Your task to perform on an android device: Open CNN.com Image 0: 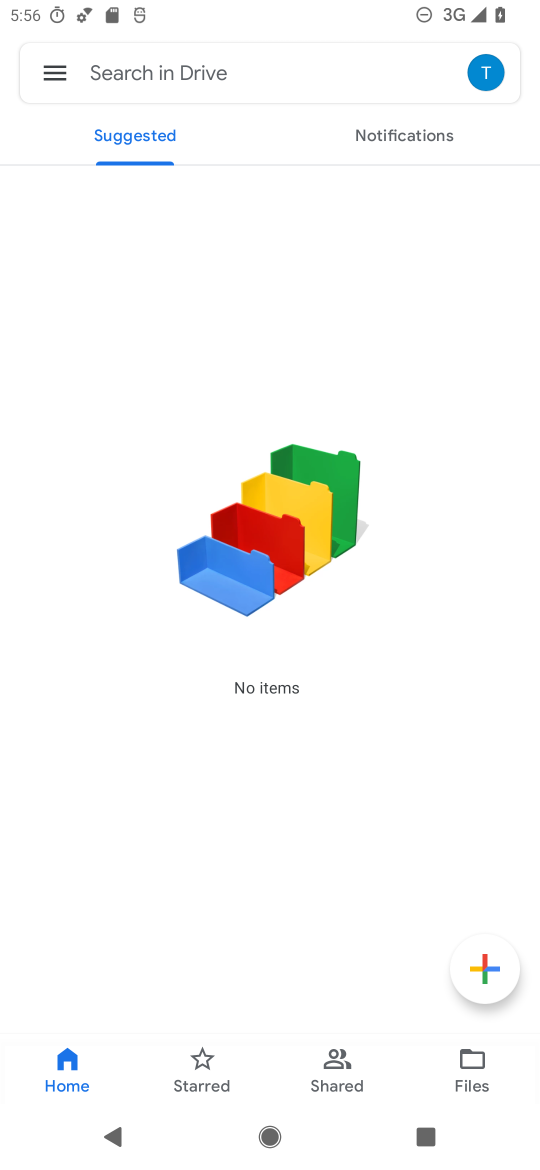
Step 0: press home button
Your task to perform on an android device: Open CNN.com Image 1: 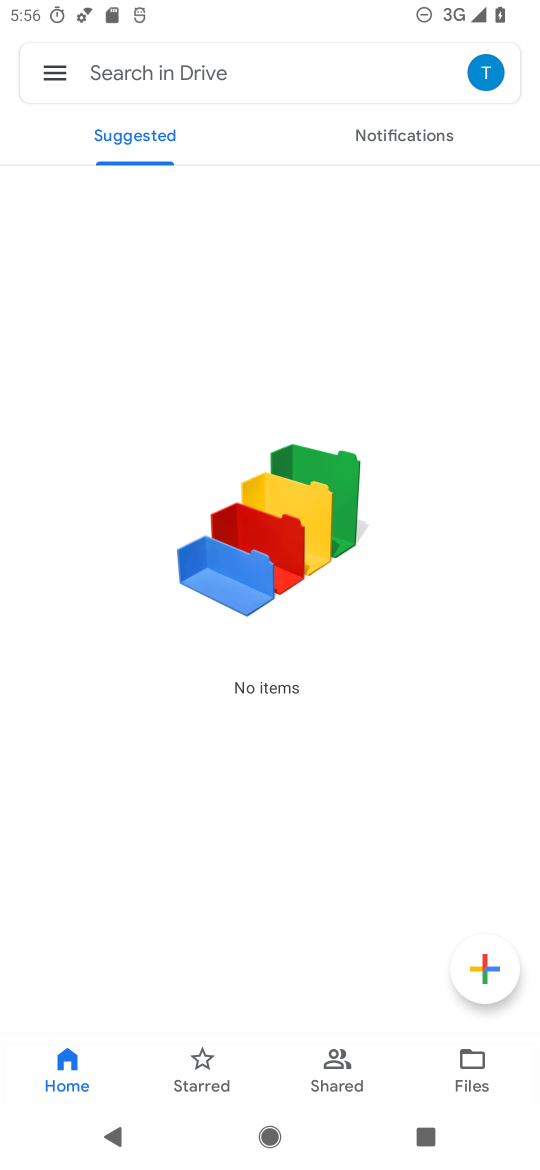
Step 1: press home button
Your task to perform on an android device: Open CNN.com Image 2: 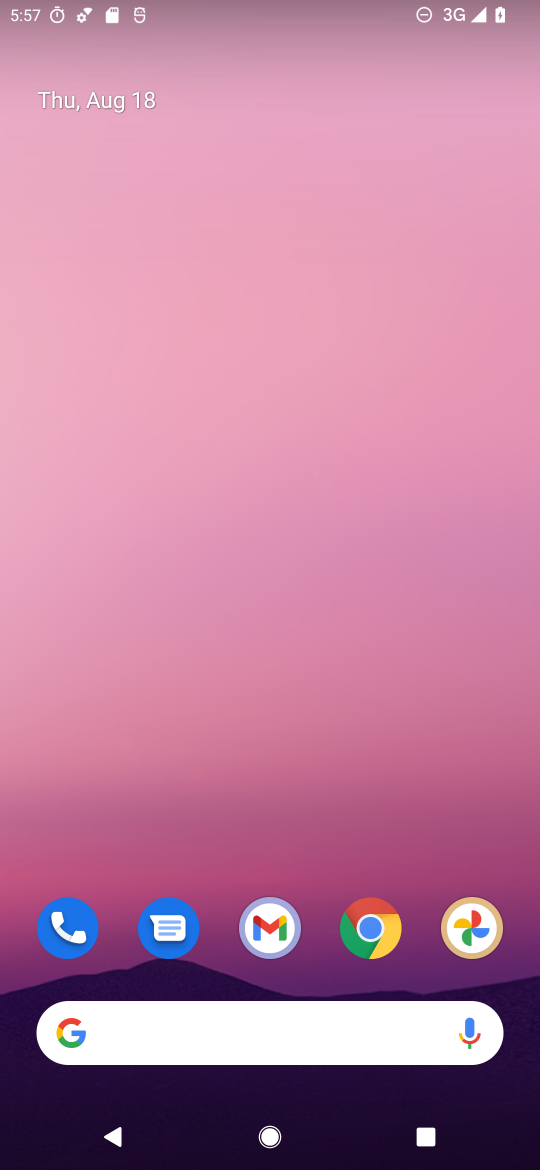
Step 2: drag from (386, 845) to (380, 1)
Your task to perform on an android device: Open CNN.com Image 3: 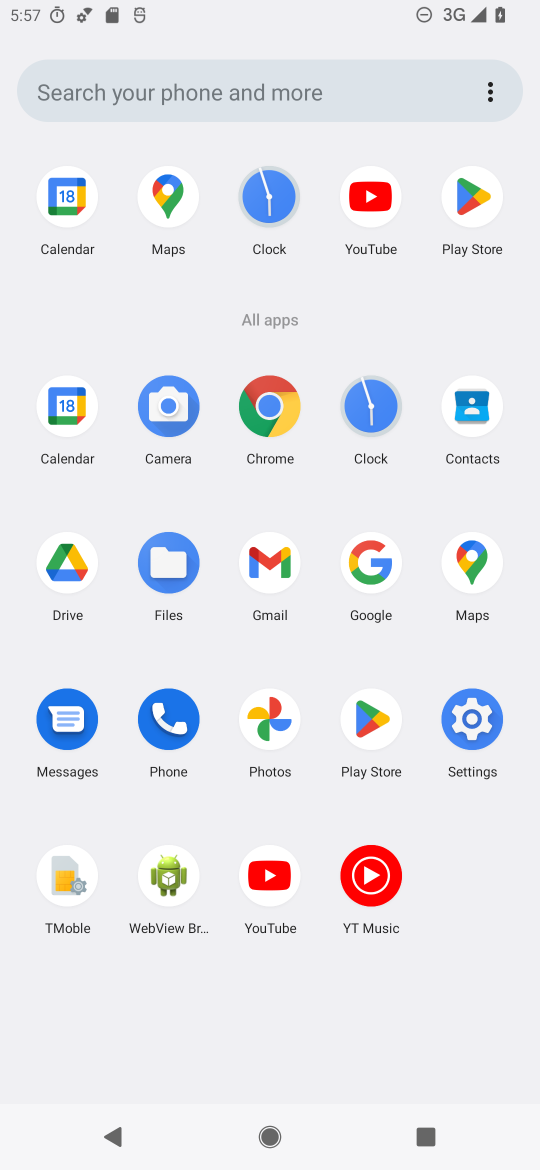
Step 3: click (256, 410)
Your task to perform on an android device: Open CNN.com Image 4: 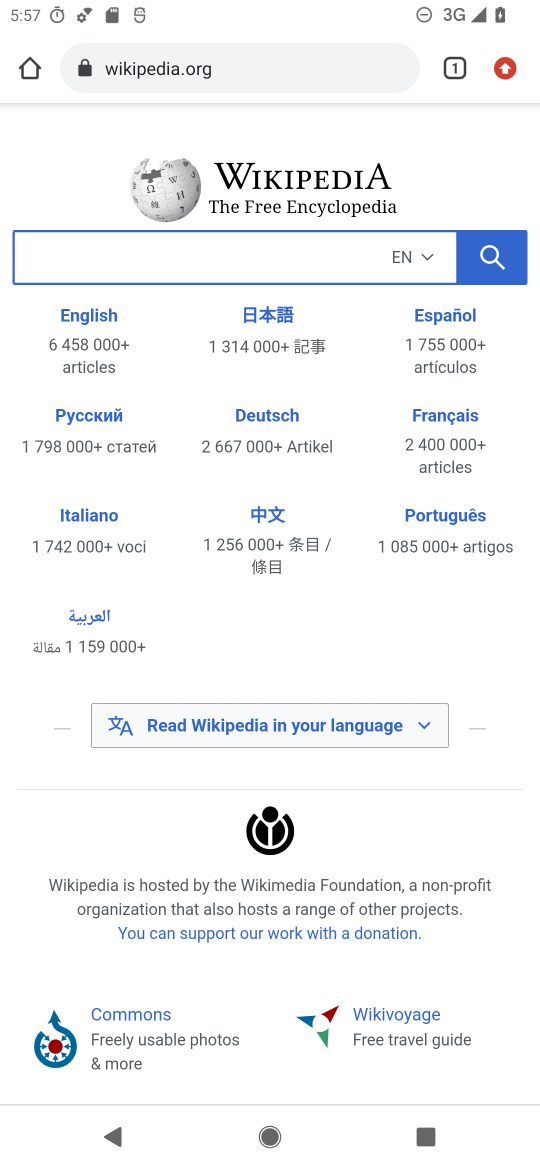
Step 4: click (263, 68)
Your task to perform on an android device: Open CNN.com Image 5: 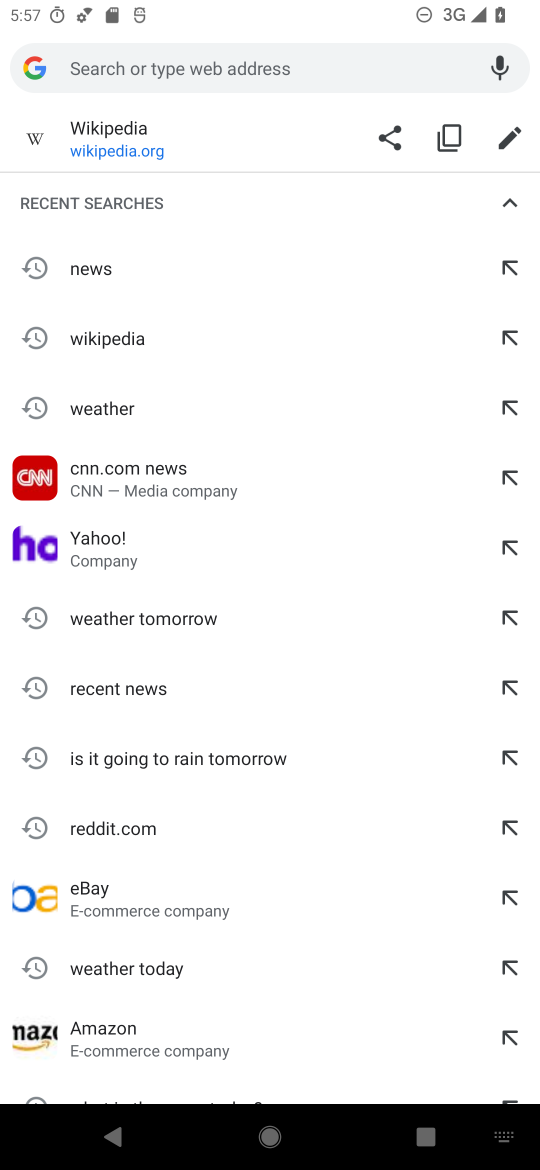
Step 5: type "cnn.com"
Your task to perform on an android device: Open CNN.com Image 6: 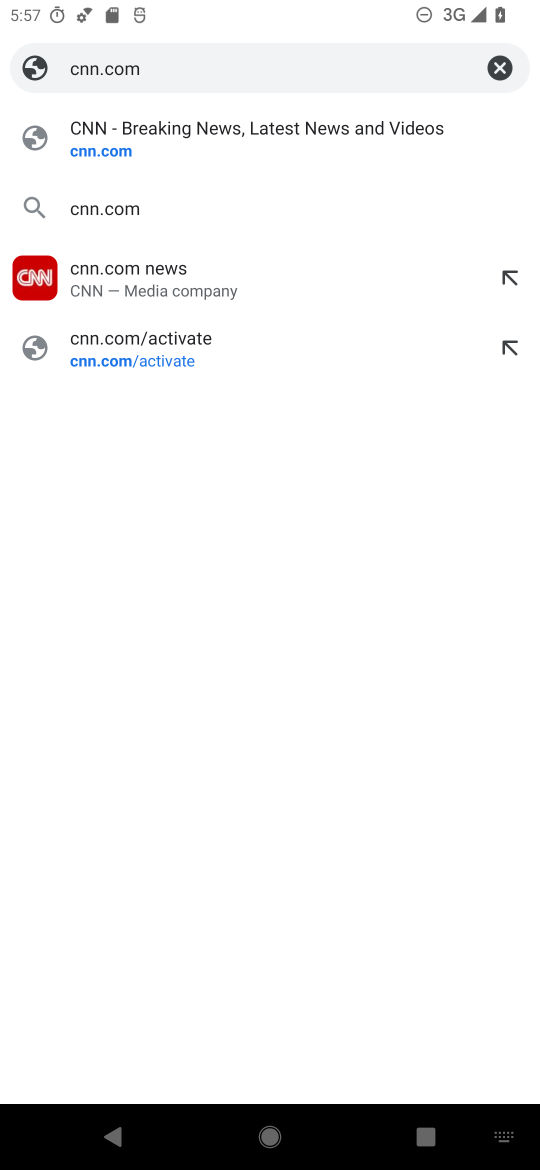
Step 6: click (105, 168)
Your task to perform on an android device: Open CNN.com Image 7: 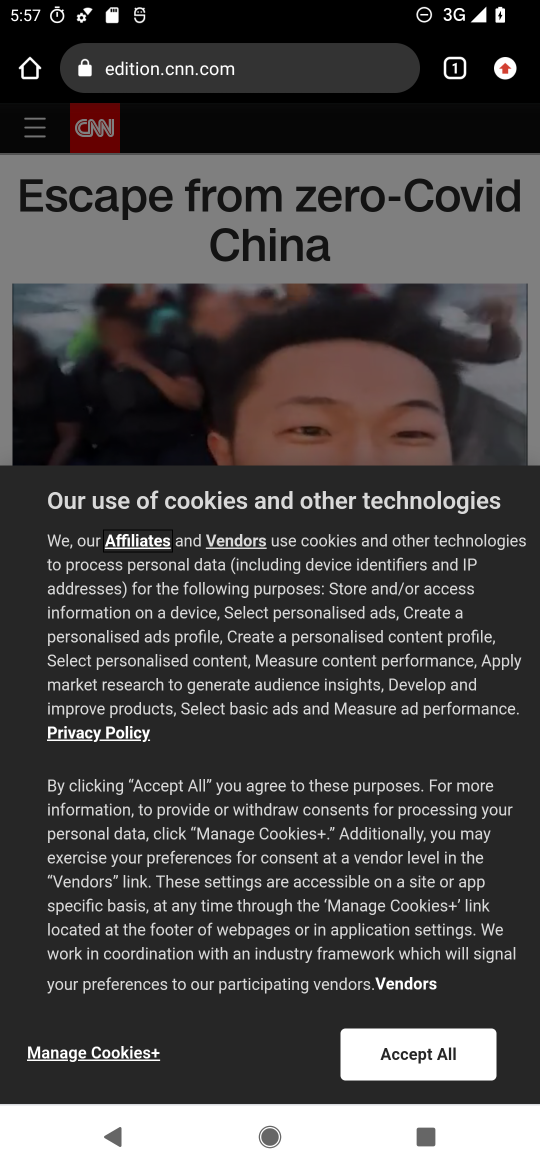
Step 7: task complete